Your task to perform on an android device: change the clock display to show seconds Image 0: 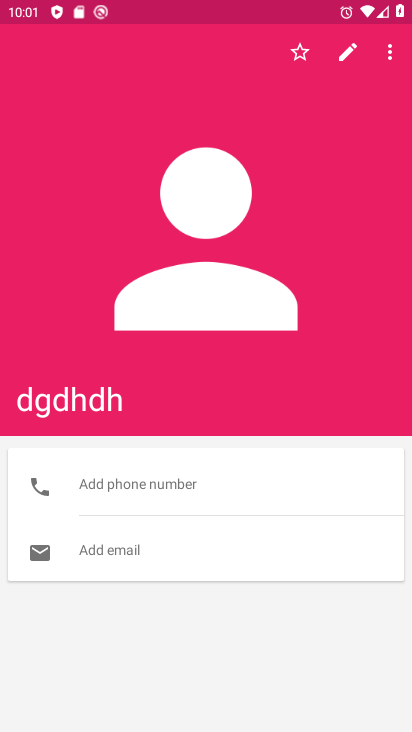
Step 0: press home button
Your task to perform on an android device: change the clock display to show seconds Image 1: 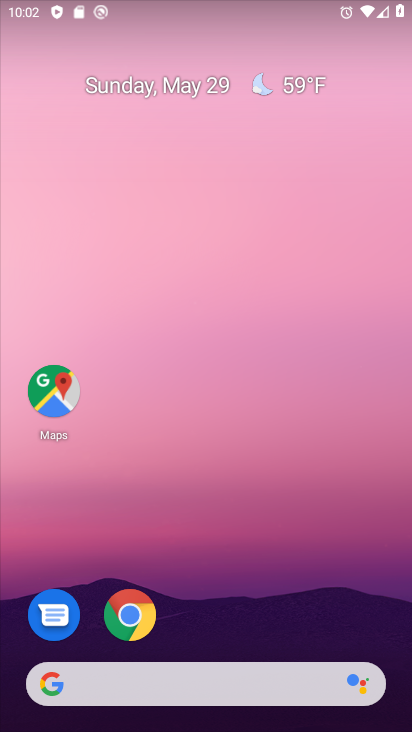
Step 1: drag from (244, 606) to (229, 102)
Your task to perform on an android device: change the clock display to show seconds Image 2: 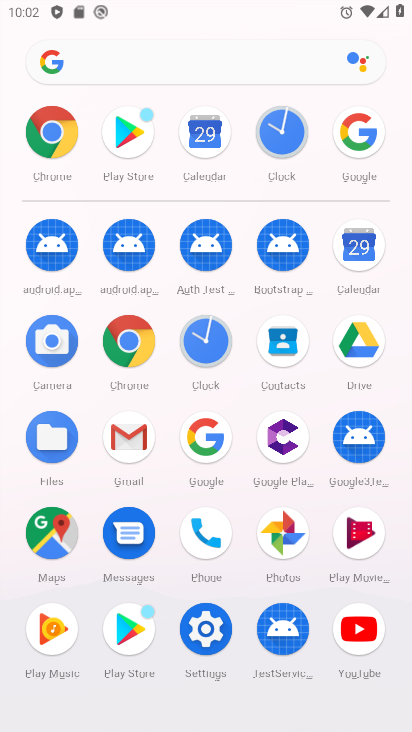
Step 2: click (212, 330)
Your task to perform on an android device: change the clock display to show seconds Image 3: 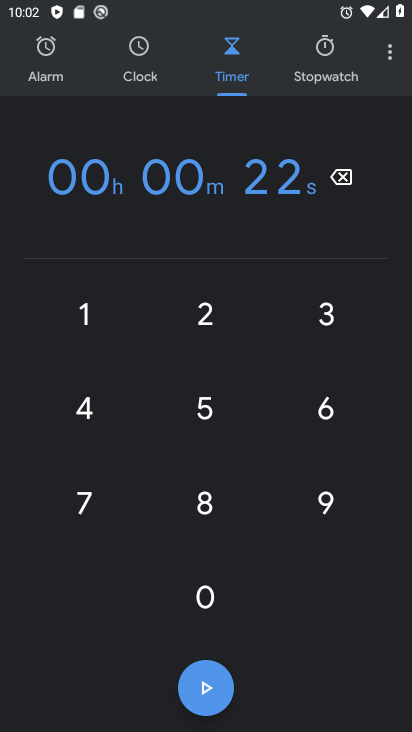
Step 3: click (382, 53)
Your task to perform on an android device: change the clock display to show seconds Image 4: 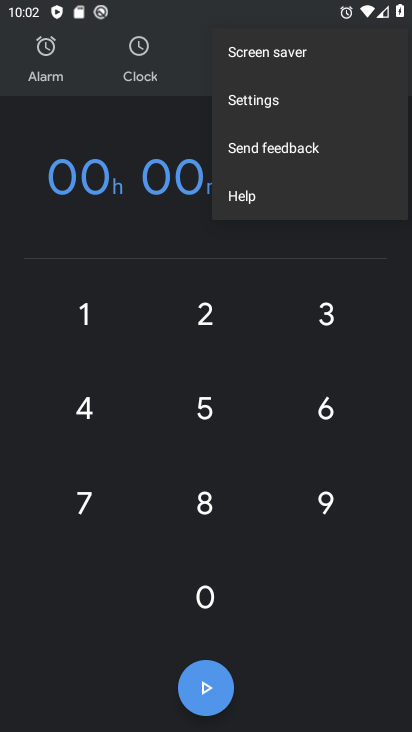
Step 4: click (292, 104)
Your task to perform on an android device: change the clock display to show seconds Image 5: 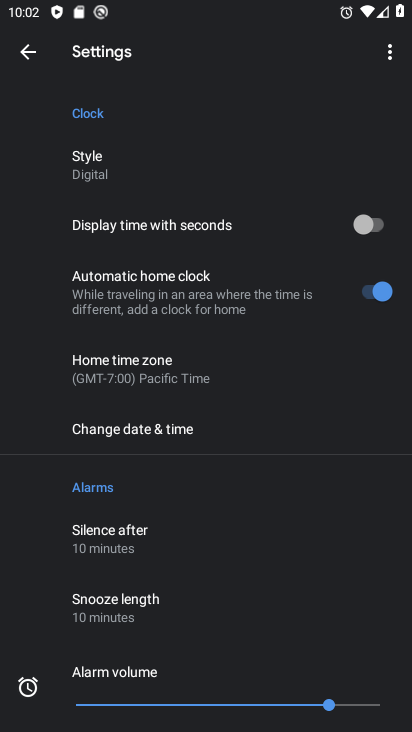
Step 5: click (377, 226)
Your task to perform on an android device: change the clock display to show seconds Image 6: 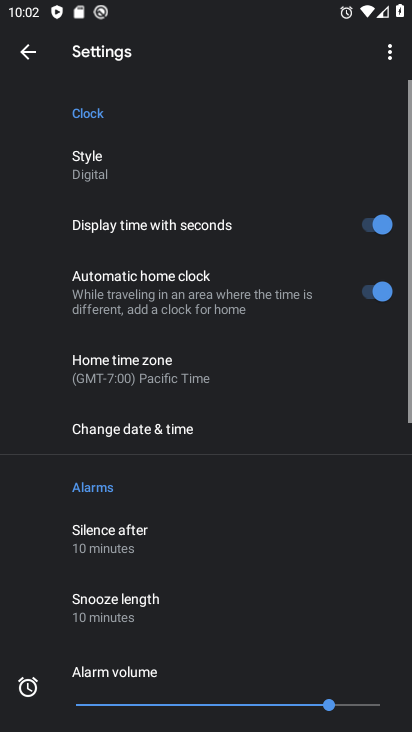
Step 6: task complete